Your task to perform on an android device: check storage Image 0: 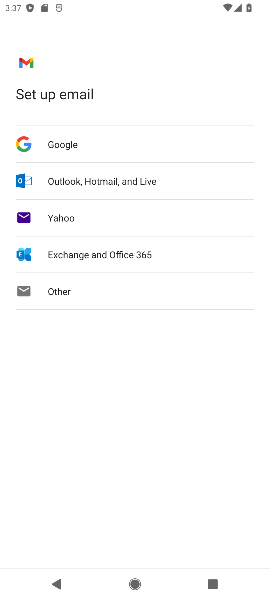
Step 0: press home button
Your task to perform on an android device: check storage Image 1: 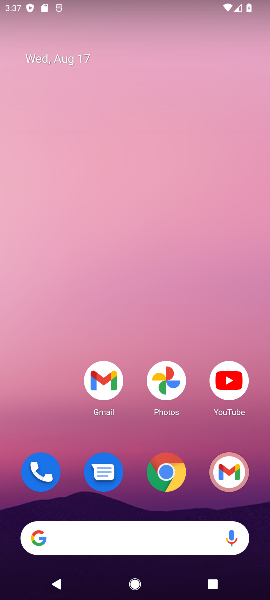
Step 1: drag from (144, 434) to (184, 107)
Your task to perform on an android device: check storage Image 2: 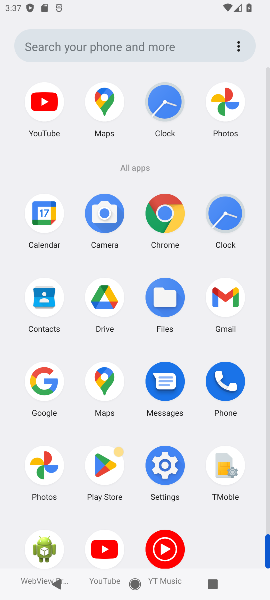
Step 2: click (166, 446)
Your task to perform on an android device: check storage Image 3: 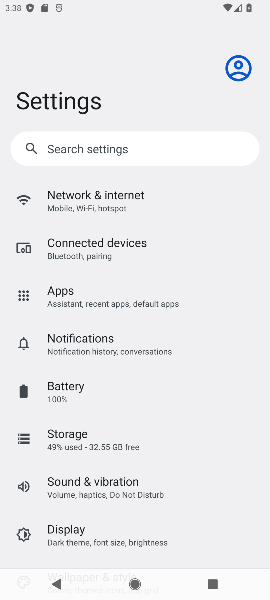
Step 3: click (124, 429)
Your task to perform on an android device: check storage Image 4: 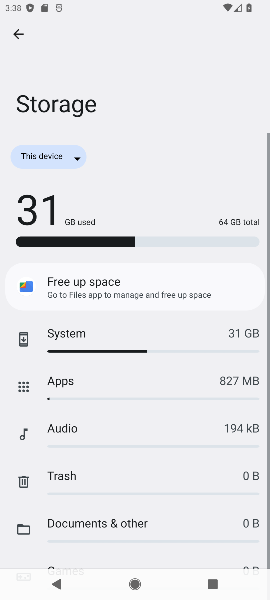
Step 4: task complete